Your task to perform on an android device: Go to Android settings Image 0: 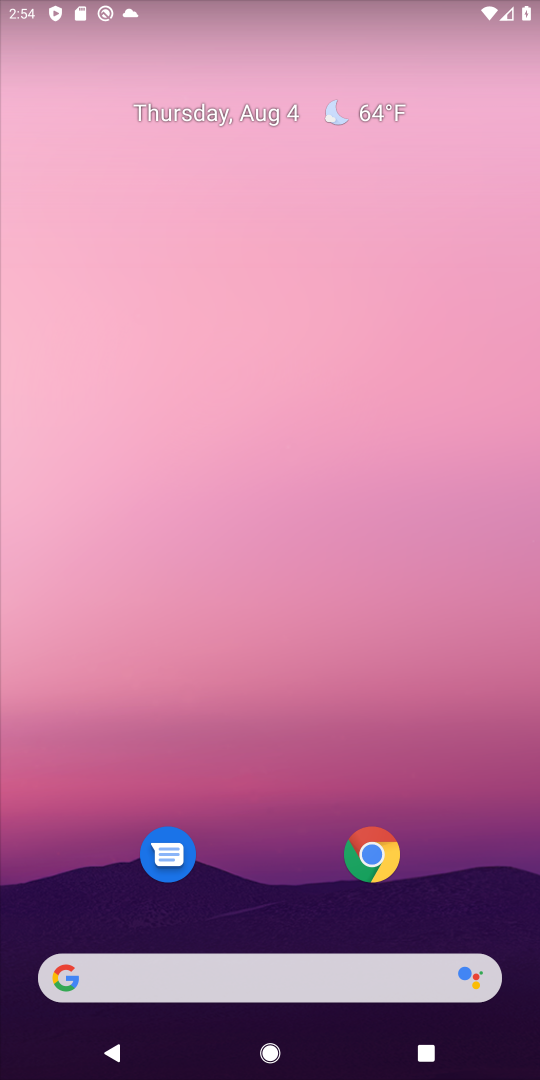
Step 0: drag from (334, 694) to (310, 114)
Your task to perform on an android device: Go to Android settings Image 1: 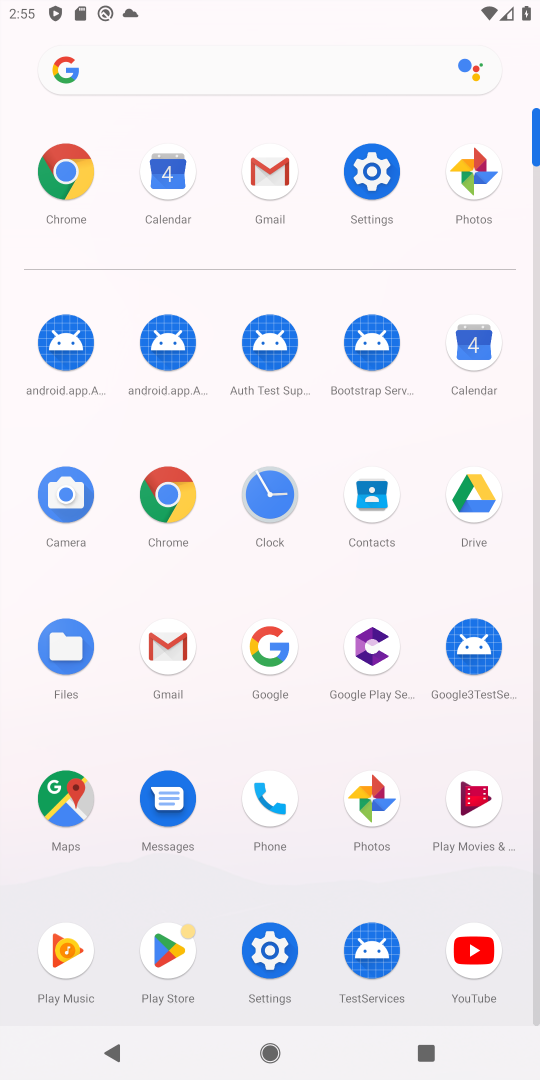
Step 1: click (380, 170)
Your task to perform on an android device: Go to Android settings Image 2: 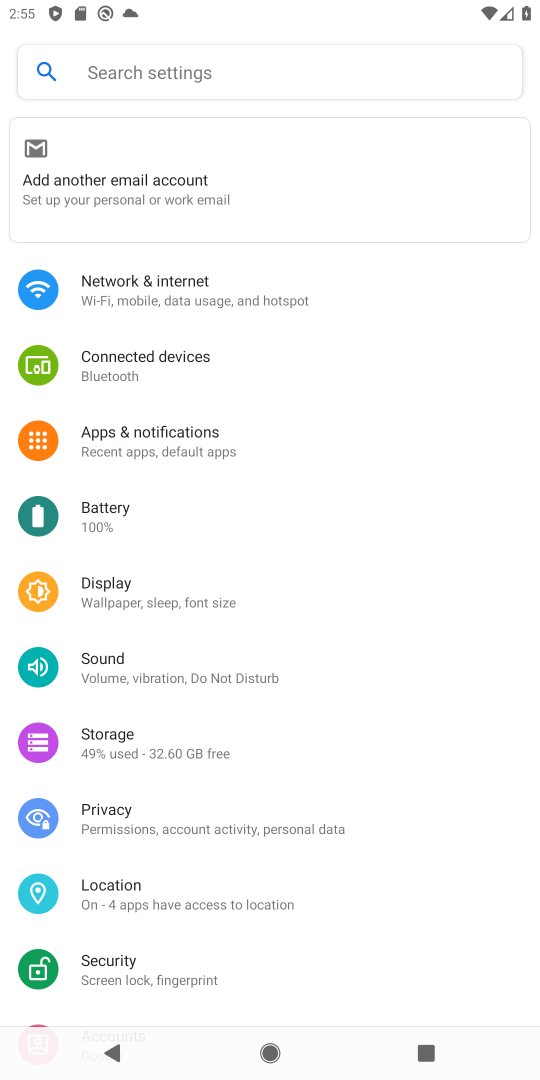
Step 2: task complete